Your task to perform on an android device: turn on translation in the chrome app Image 0: 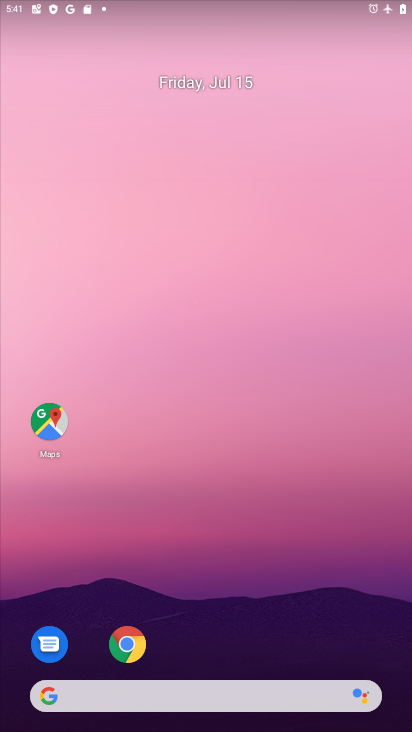
Step 0: click (132, 645)
Your task to perform on an android device: turn on translation in the chrome app Image 1: 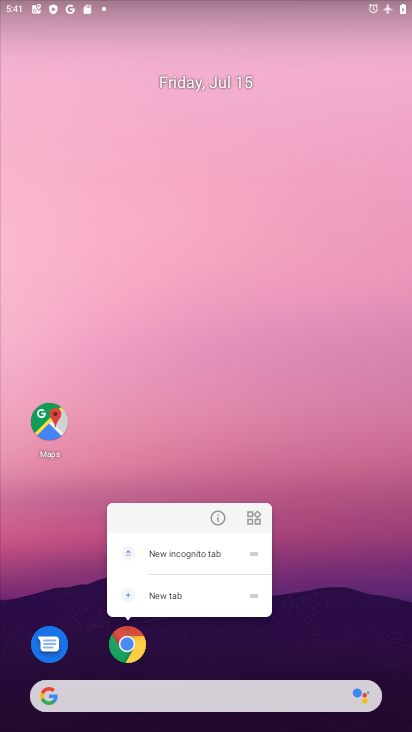
Step 1: click (130, 647)
Your task to perform on an android device: turn on translation in the chrome app Image 2: 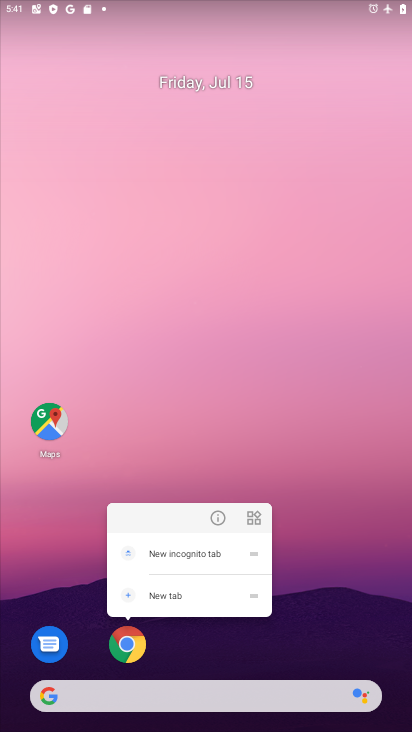
Step 2: click (130, 647)
Your task to perform on an android device: turn on translation in the chrome app Image 3: 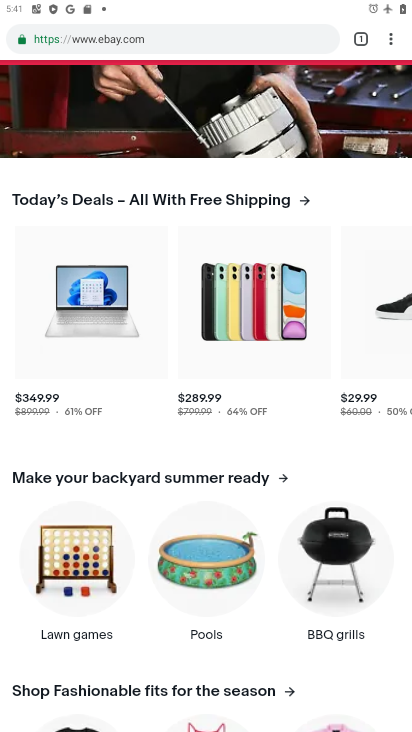
Step 3: press back button
Your task to perform on an android device: turn on translation in the chrome app Image 4: 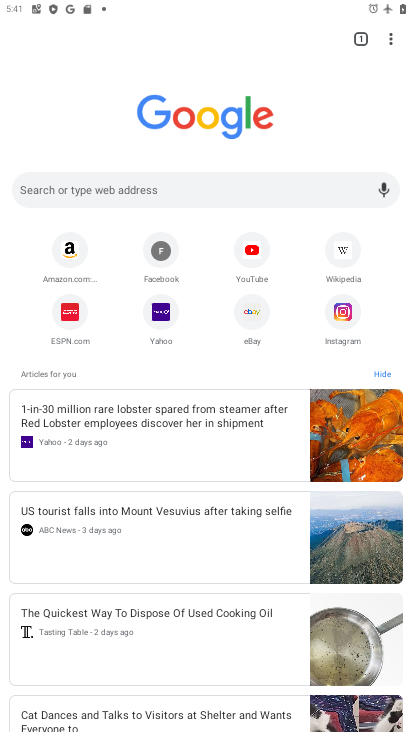
Step 4: click (398, 42)
Your task to perform on an android device: turn on translation in the chrome app Image 5: 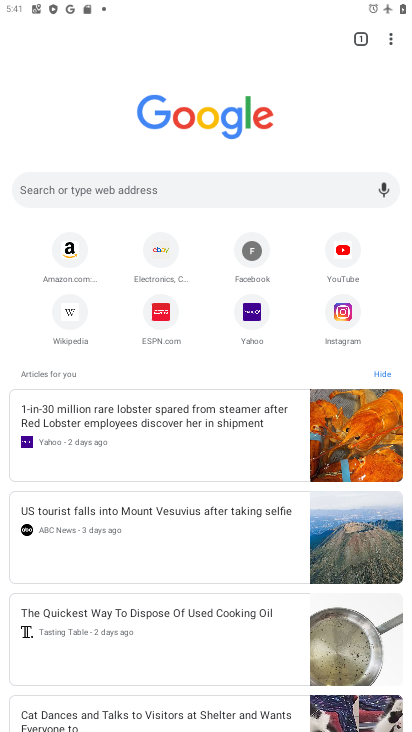
Step 5: click (389, 44)
Your task to perform on an android device: turn on translation in the chrome app Image 6: 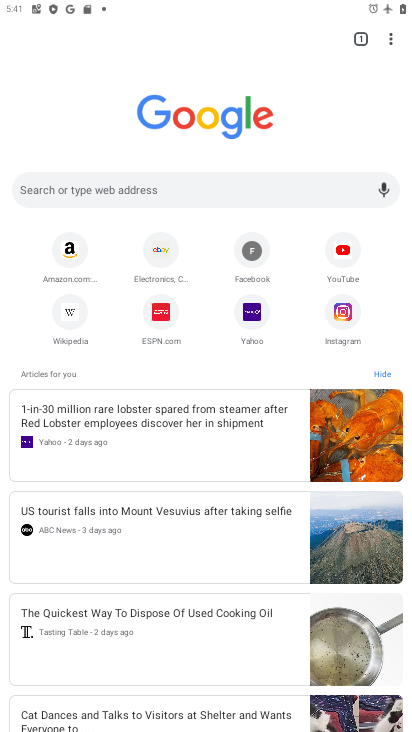
Step 6: click (395, 34)
Your task to perform on an android device: turn on translation in the chrome app Image 7: 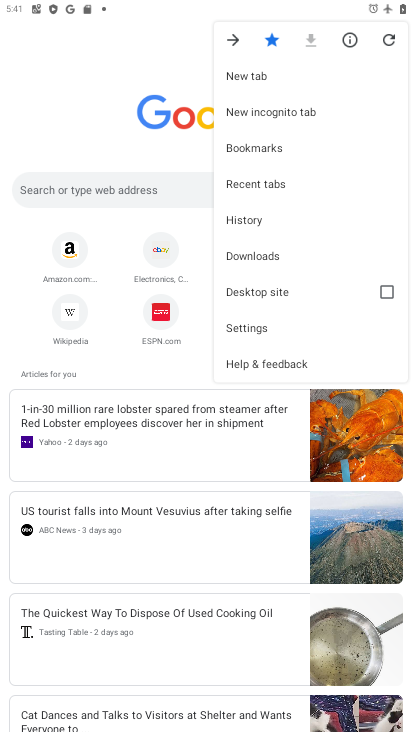
Step 7: click (266, 332)
Your task to perform on an android device: turn on translation in the chrome app Image 8: 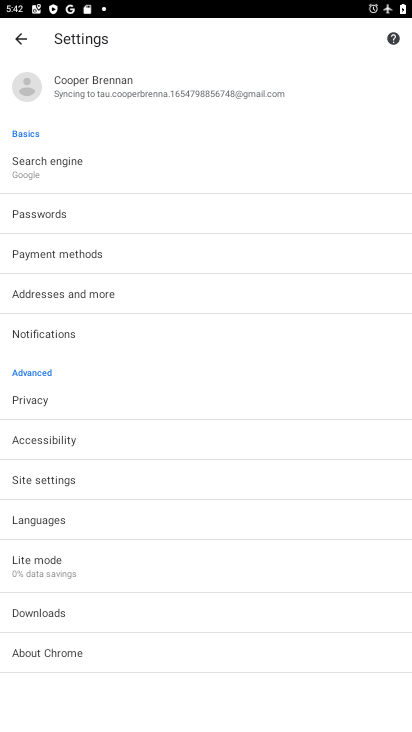
Step 8: click (43, 522)
Your task to perform on an android device: turn on translation in the chrome app Image 9: 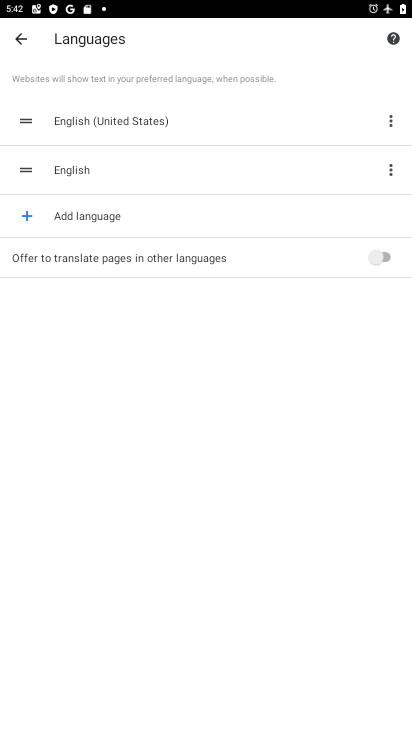
Step 9: click (379, 259)
Your task to perform on an android device: turn on translation in the chrome app Image 10: 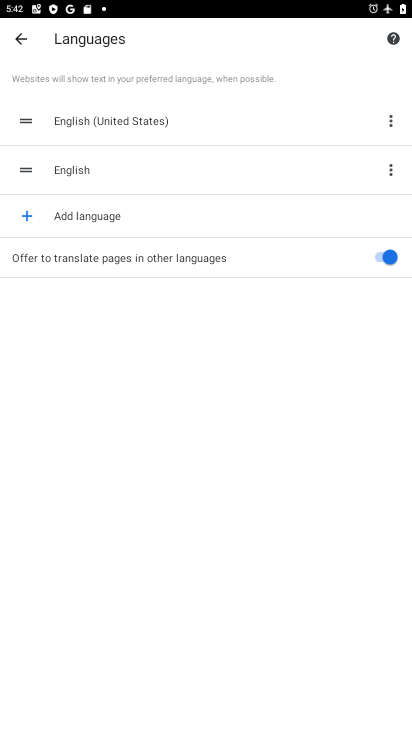
Step 10: task complete